Your task to perform on an android device: How much does a 3 bedroom apartment rent for in Seattle? Image 0: 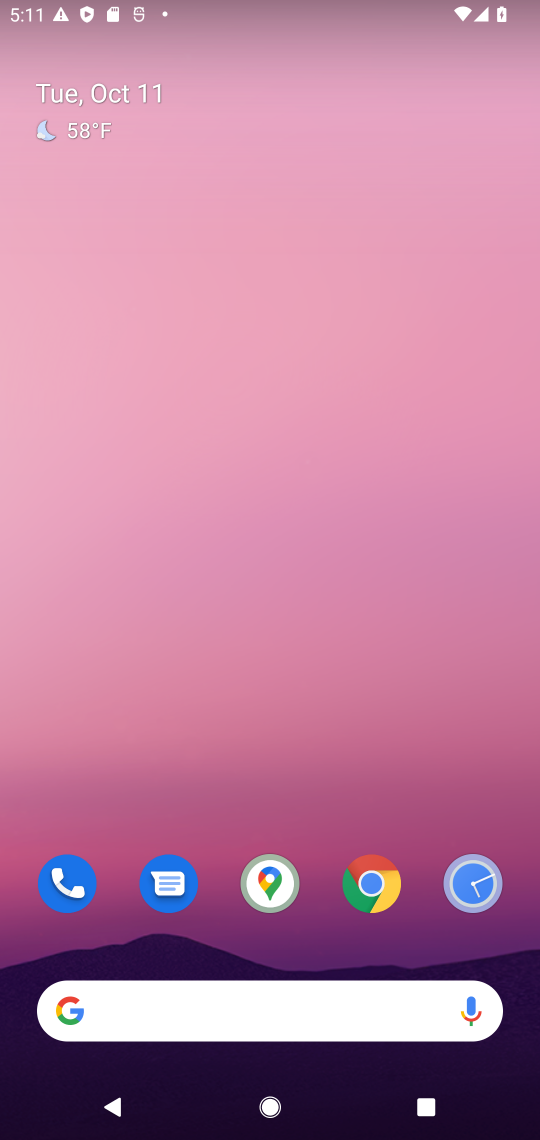
Step 0: drag from (309, 958) to (383, 266)
Your task to perform on an android device: How much does a 3 bedroom apartment rent for in Seattle? Image 1: 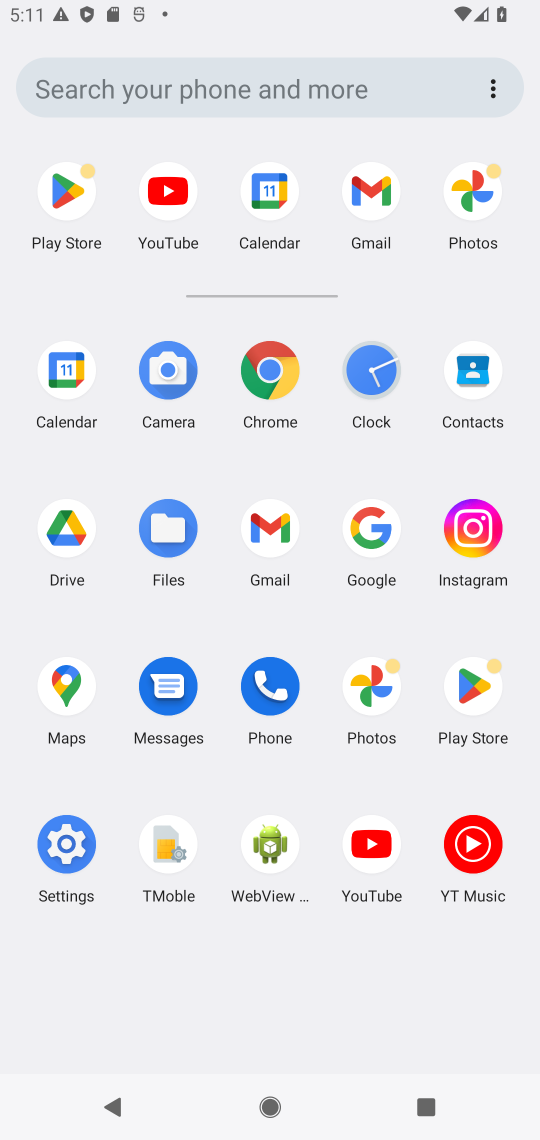
Step 1: click (275, 367)
Your task to perform on an android device: How much does a 3 bedroom apartment rent for in Seattle? Image 2: 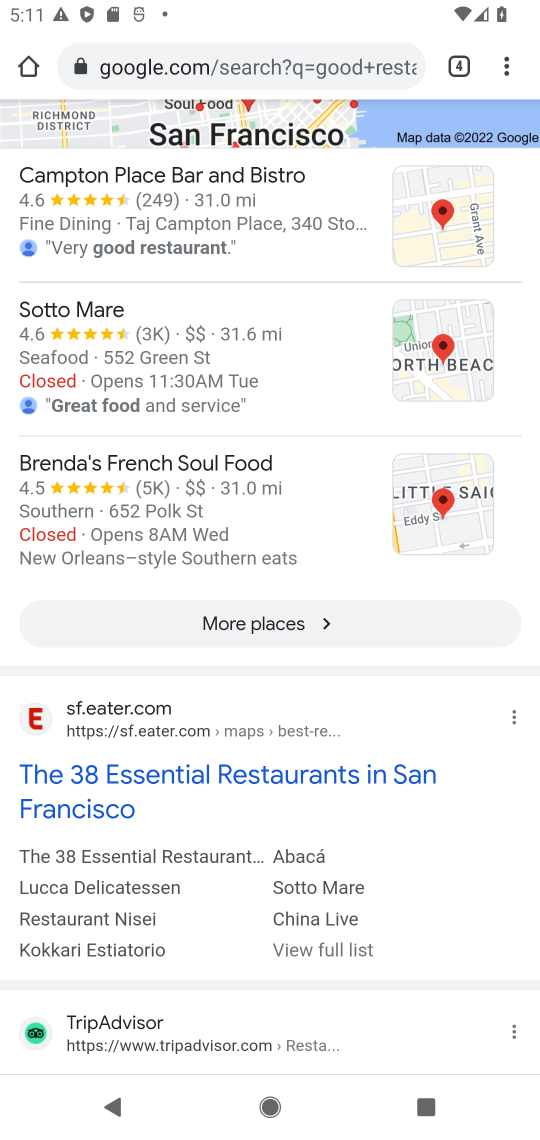
Step 2: click (256, 71)
Your task to perform on an android device: How much does a 3 bedroom apartment rent for in Seattle? Image 3: 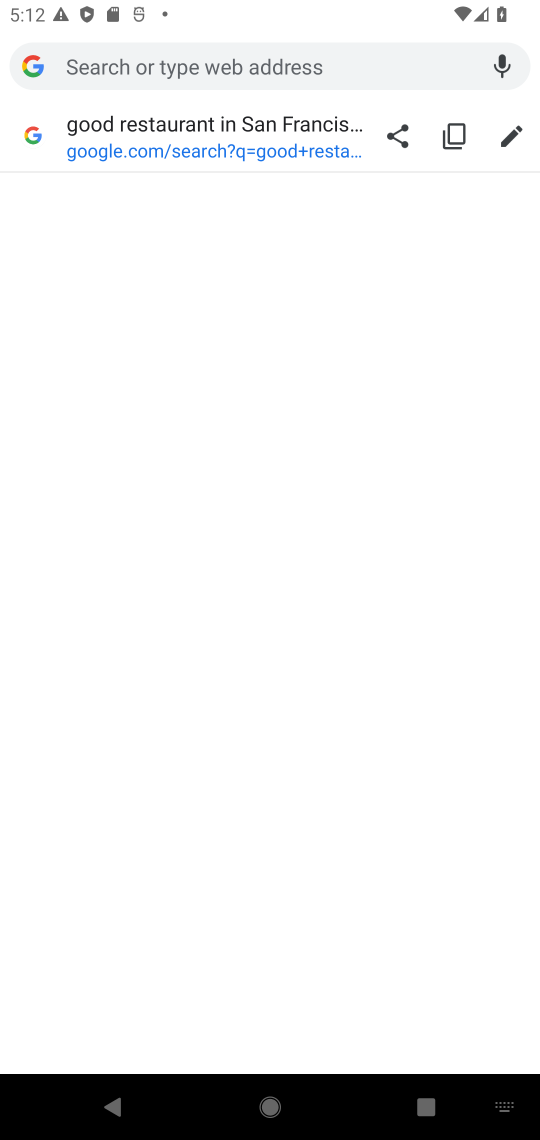
Step 3: type "How much does a 3 bedroom apartment rent for in Seattle?"
Your task to perform on an android device: How much does a 3 bedroom apartment rent for in Seattle? Image 4: 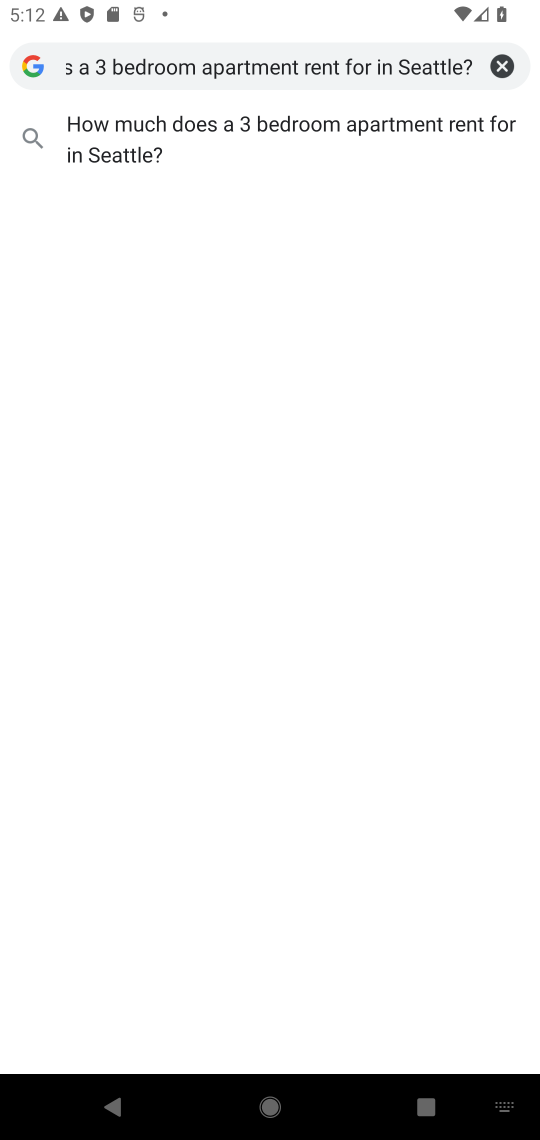
Step 4: press enter
Your task to perform on an android device: How much does a 3 bedroom apartment rent for in Seattle? Image 5: 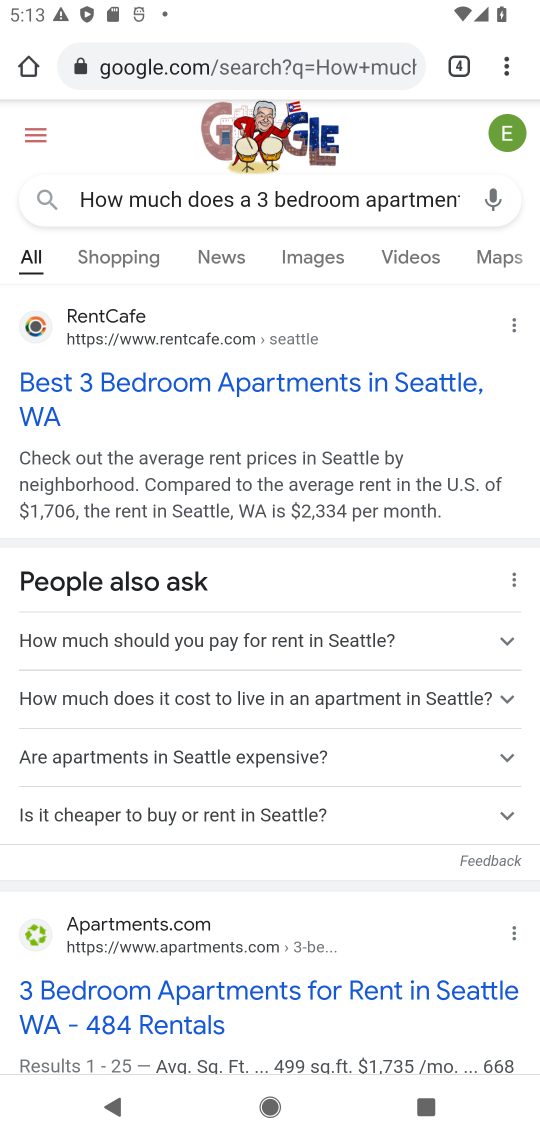
Step 5: task complete